Your task to perform on an android device: Go to eBay Image 0: 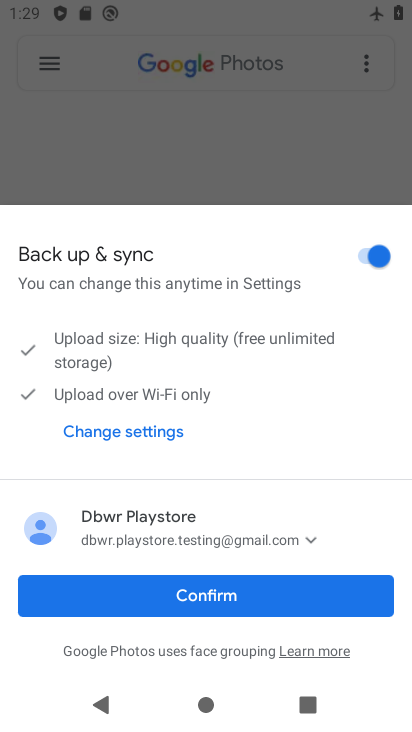
Step 0: press home button
Your task to perform on an android device: Go to eBay Image 1: 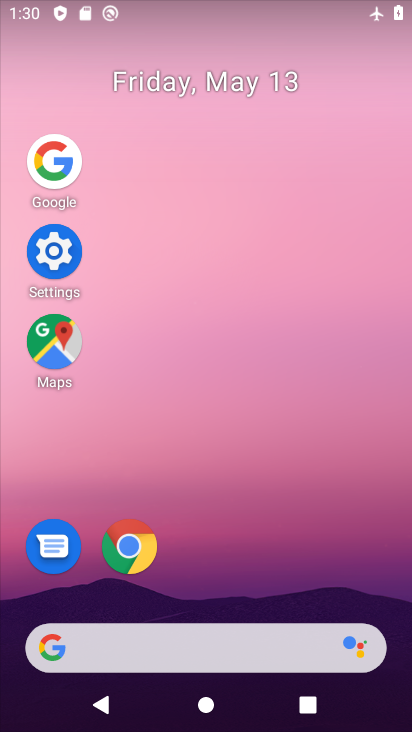
Step 1: click (122, 560)
Your task to perform on an android device: Go to eBay Image 2: 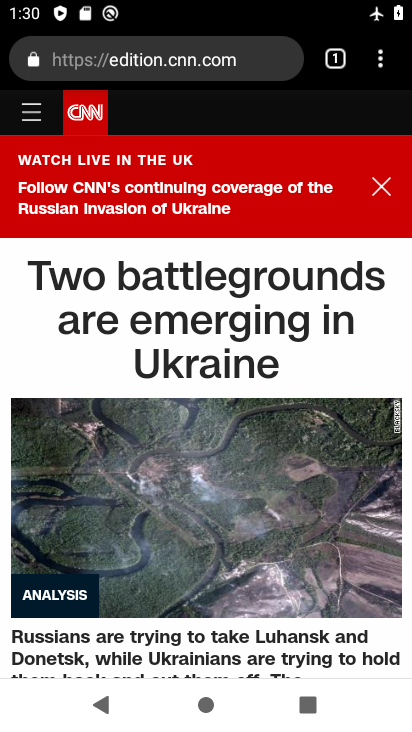
Step 2: click (343, 52)
Your task to perform on an android device: Go to eBay Image 3: 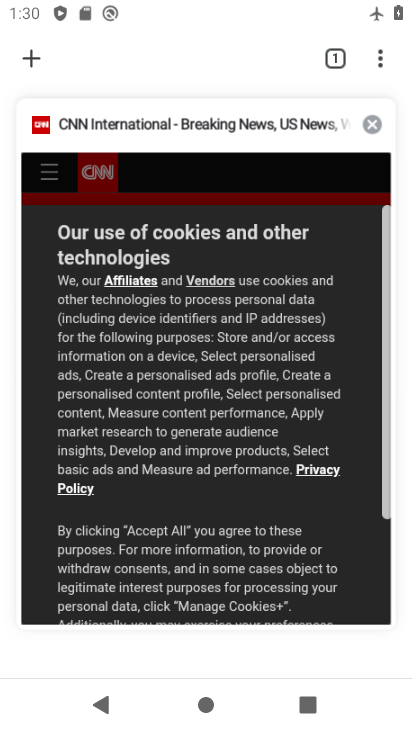
Step 3: click (38, 66)
Your task to perform on an android device: Go to eBay Image 4: 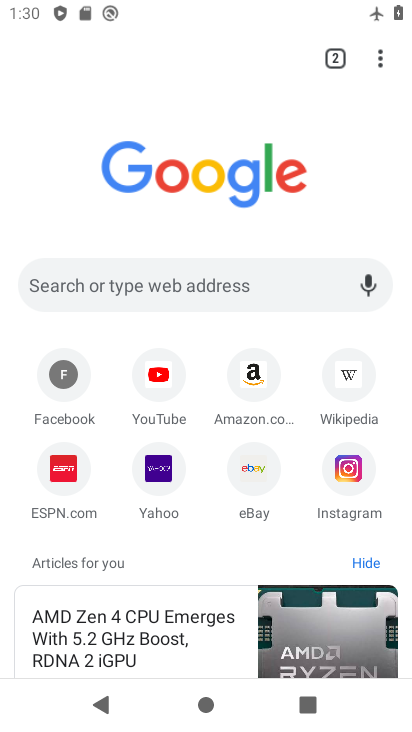
Step 4: click (259, 469)
Your task to perform on an android device: Go to eBay Image 5: 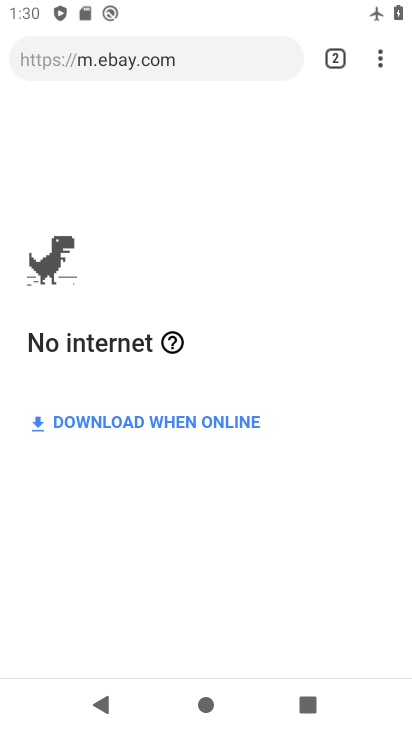
Step 5: task complete